Your task to perform on an android device: change notifications settings Image 0: 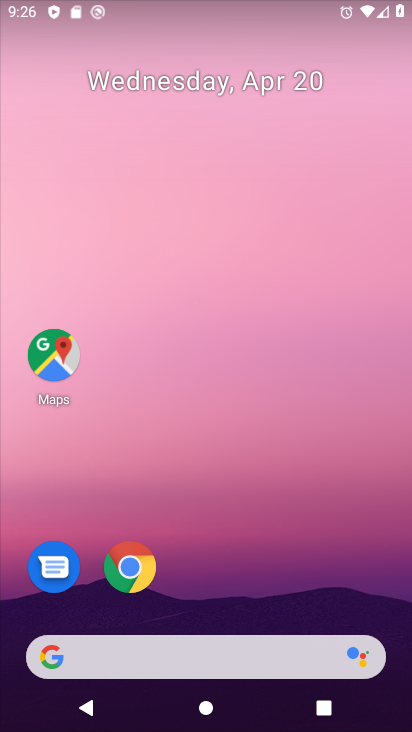
Step 0: drag from (355, 572) to (386, 180)
Your task to perform on an android device: change notifications settings Image 1: 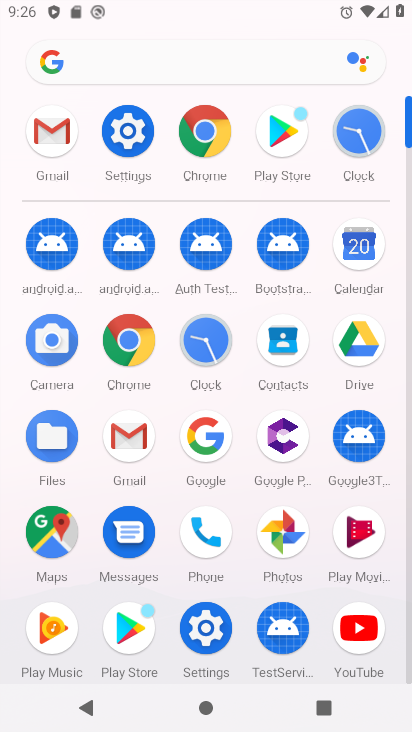
Step 1: click (134, 149)
Your task to perform on an android device: change notifications settings Image 2: 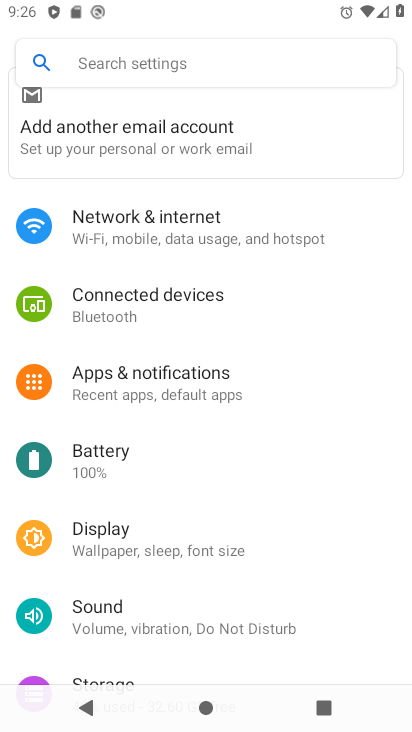
Step 2: drag from (330, 620) to (348, 379)
Your task to perform on an android device: change notifications settings Image 3: 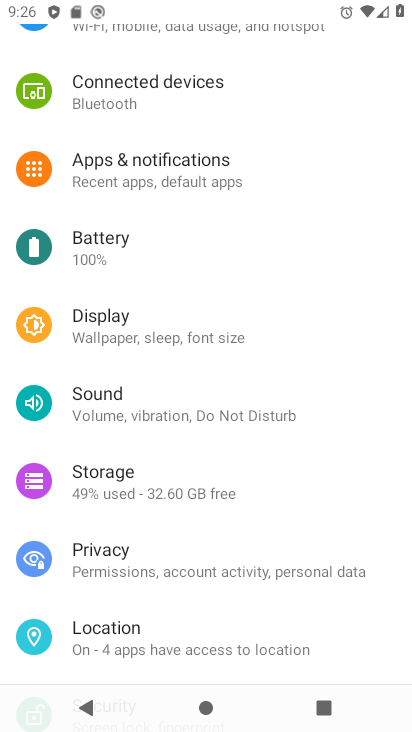
Step 3: drag from (350, 599) to (361, 322)
Your task to perform on an android device: change notifications settings Image 4: 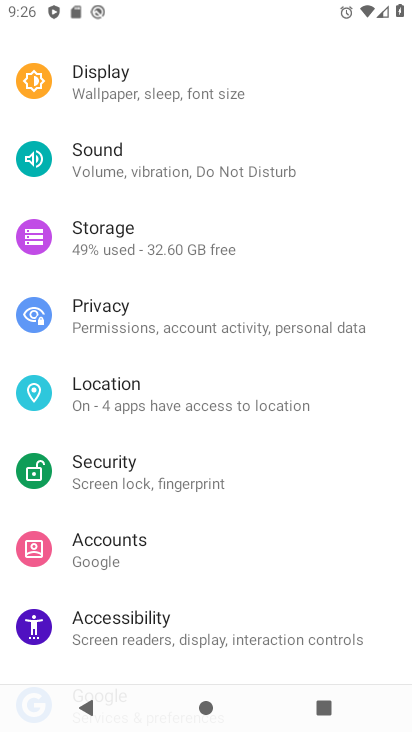
Step 4: drag from (348, 535) to (369, 352)
Your task to perform on an android device: change notifications settings Image 5: 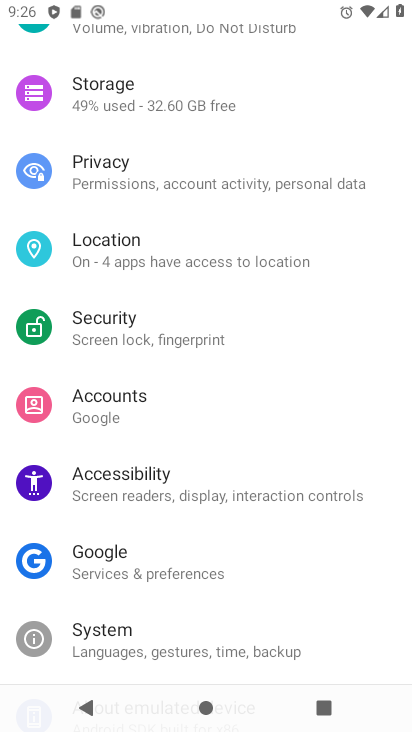
Step 5: drag from (381, 337) to (373, 553)
Your task to perform on an android device: change notifications settings Image 6: 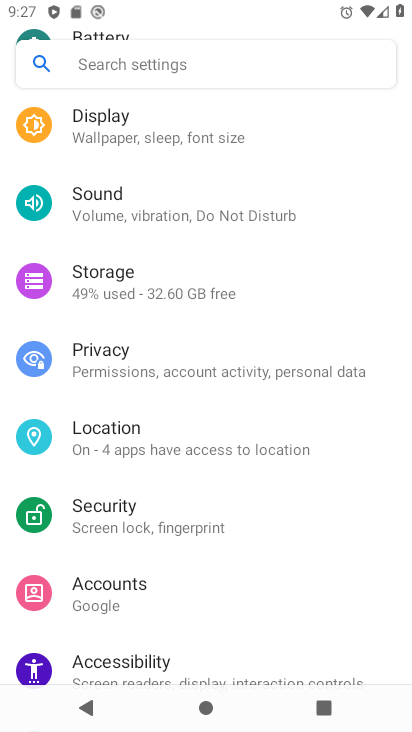
Step 6: drag from (387, 314) to (388, 431)
Your task to perform on an android device: change notifications settings Image 7: 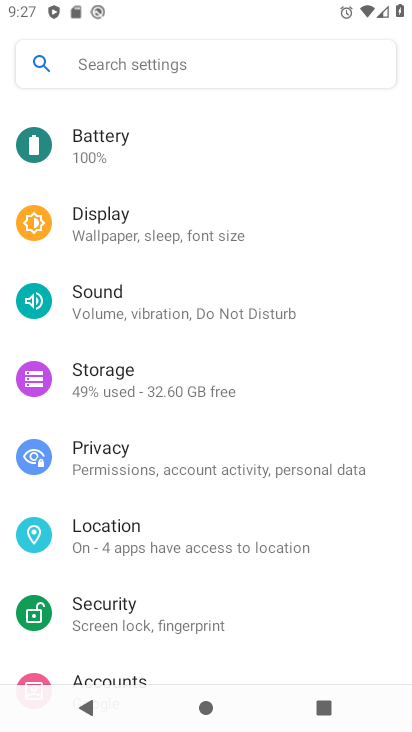
Step 7: drag from (380, 253) to (379, 406)
Your task to perform on an android device: change notifications settings Image 8: 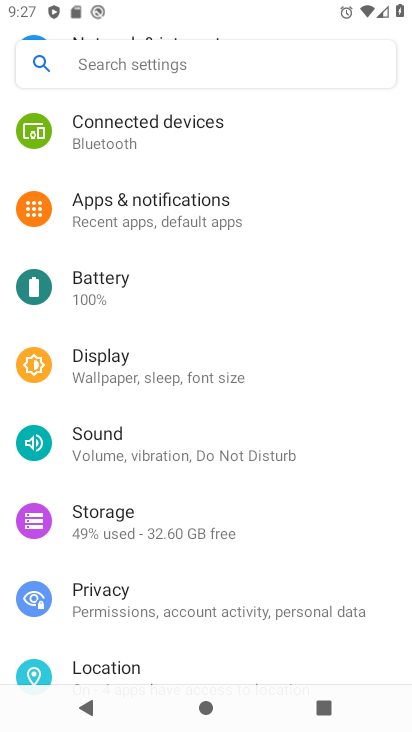
Step 8: drag from (371, 220) to (361, 396)
Your task to perform on an android device: change notifications settings Image 9: 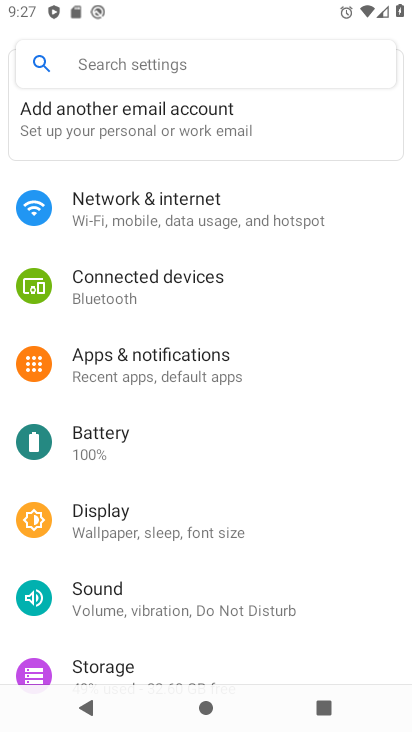
Step 9: click (212, 372)
Your task to perform on an android device: change notifications settings Image 10: 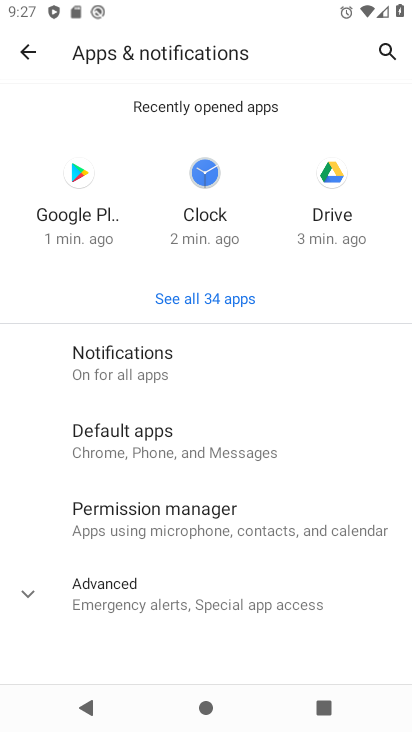
Step 10: click (159, 370)
Your task to perform on an android device: change notifications settings Image 11: 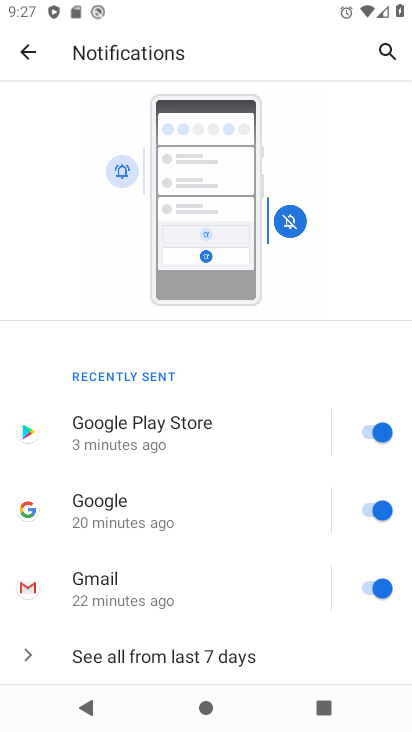
Step 11: click (376, 418)
Your task to perform on an android device: change notifications settings Image 12: 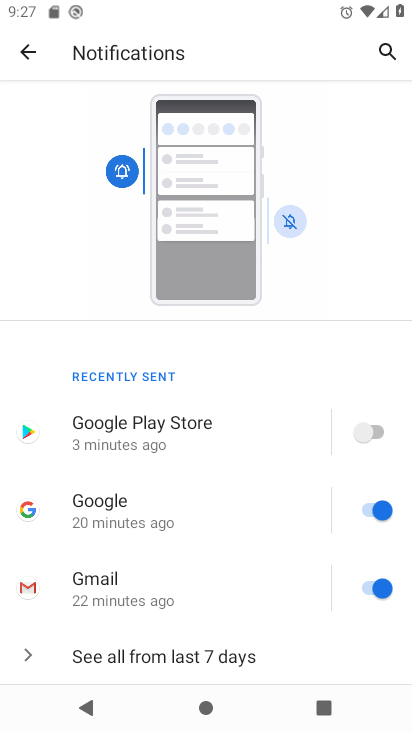
Step 12: click (386, 512)
Your task to perform on an android device: change notifications settings Image 13: 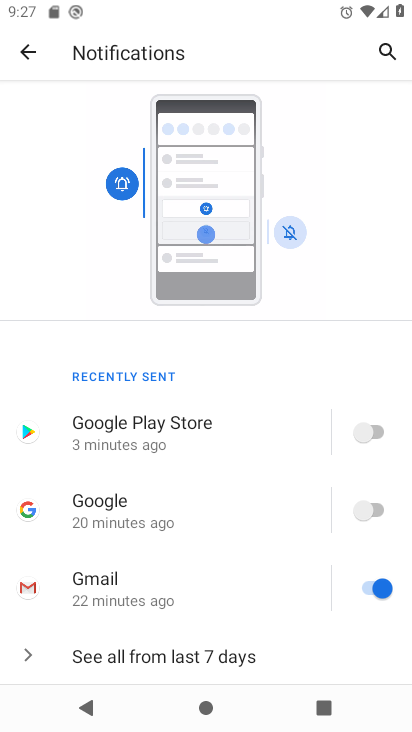
Step 13: click (371, 590)
Your task to perform on an android device: change notifications settings Image 14: 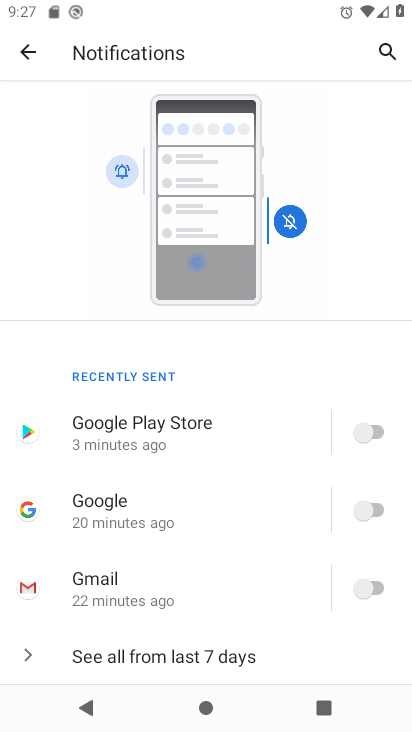
Step 14: task complete